Your task to perform on an android device: When is my next appointment? Image 0: 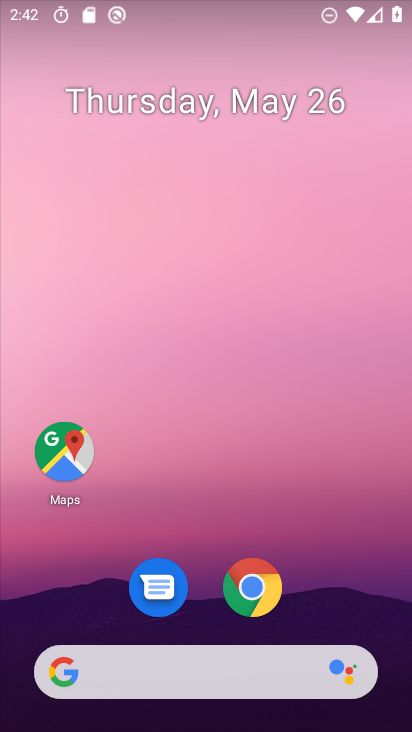
Step 0: drag from (335, 536) to (271, 148)
Your task to perform on an android device: When is my next appointment? Image 1: 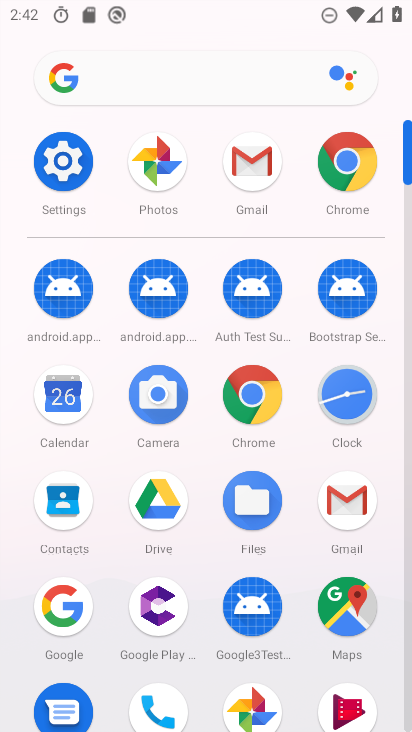
Step 1: click (71, 389)
Your task to perform on an android device: When is my next appointment? Image 2: 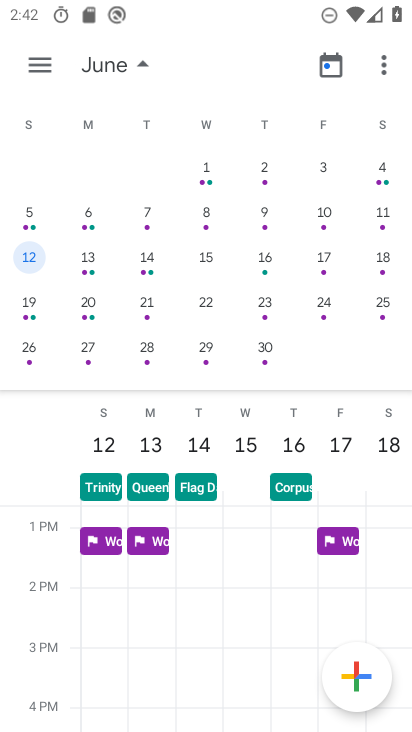
Step 2: drag from (67, 268) to (408, 271)
Your task to perform on an android device: When is my next appointment? Image 3: 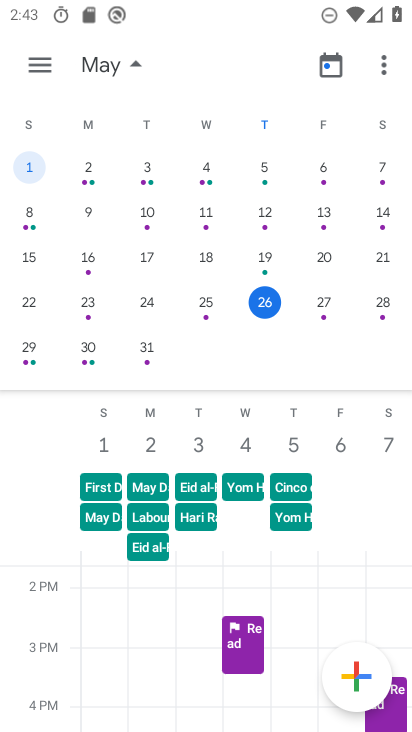
Step 3: click (270, 303)
Your task to perform on an android device: When is my next appointment? Image 4: 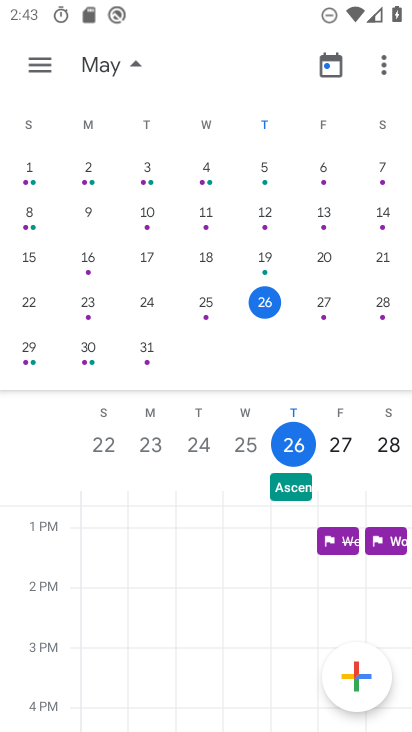
Step 4: task complete